Your task to perform on an android device: turn off location Image 0: 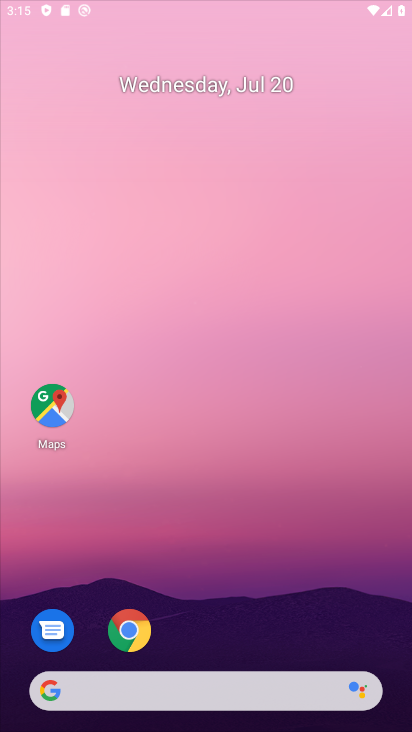
Step 0: press home button
Your task to perform on an android device: turn off location Image 1: 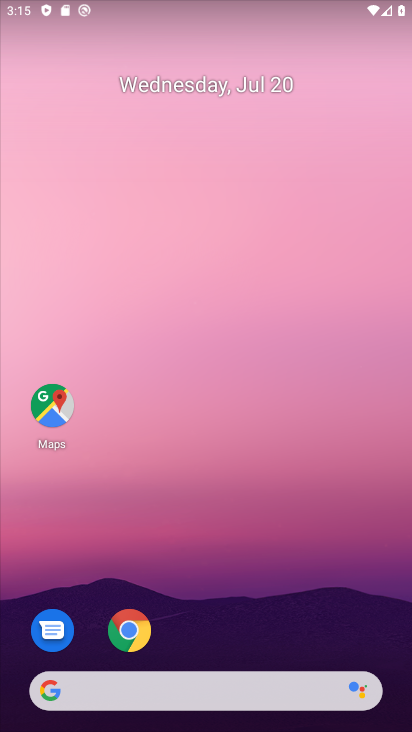
Step 1: drag from (264, 650) to (237, 0)
Your task to perform on an android device: turn off location Image 2: 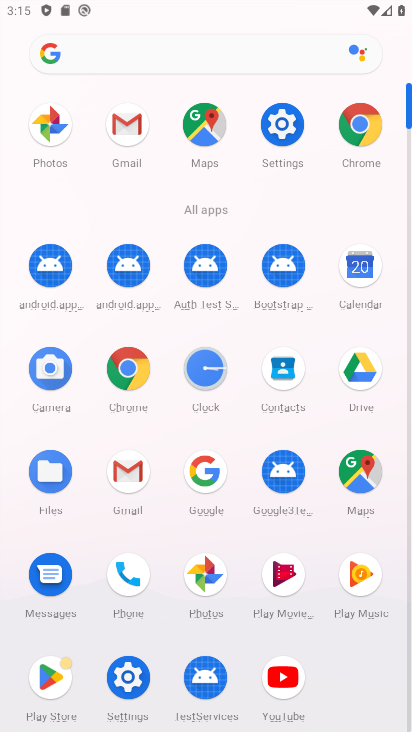
Step 2: click (274, 138)
Your task to perform on an android device: turn off location Image 3: 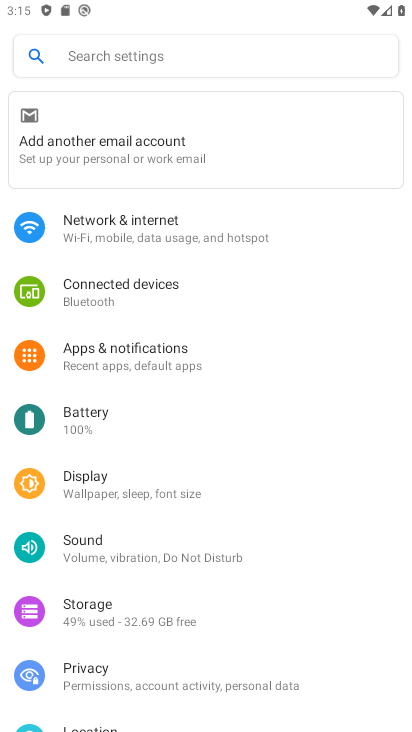
Step 3: drag from (322, 604) to (291, 88)
Your task to perform on an android device: turn off location Image 4: 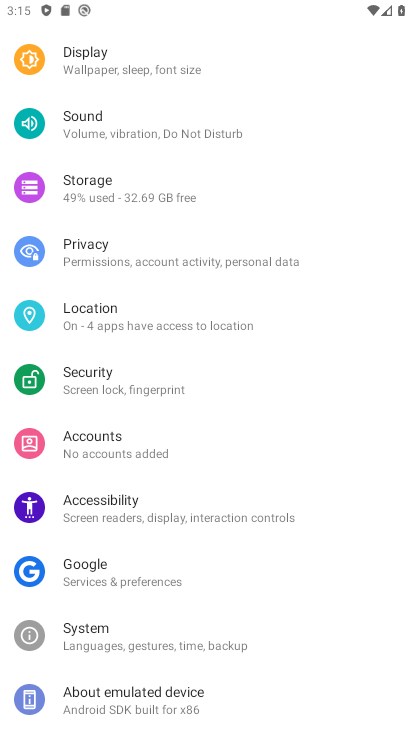
Step 4: click (71, 318)
Your task to perform on an android device: turn off location Image 5: 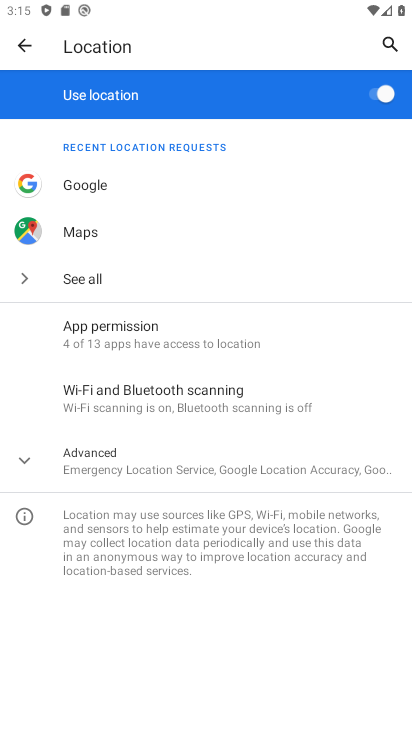
Step 5: click (386, 94)
Your task to perform on an android device: turn off location Image 6: 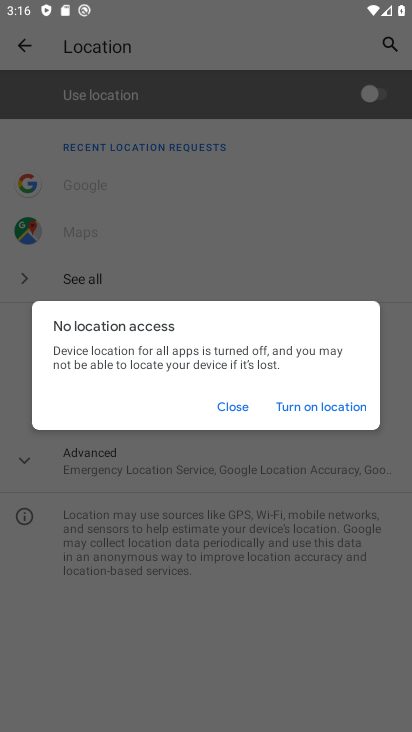
Step 6: task complete